Your task to perform on an android device: choose inbox layout in the gmail app Image 0: 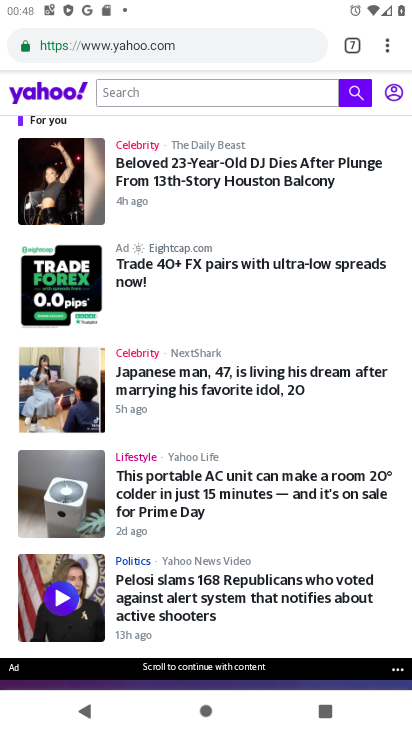
Step 0: press home button
Your task to perform on an android device: choose inbox layout in the gmail app Image 1: 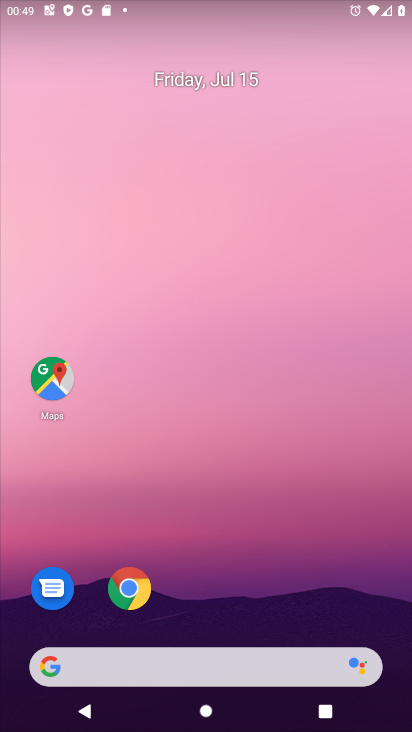
Step 1: drag from (115, 665) to (223, 174)
Your task to perform on an android device: choose inbox layout in the gmail app Image 2: 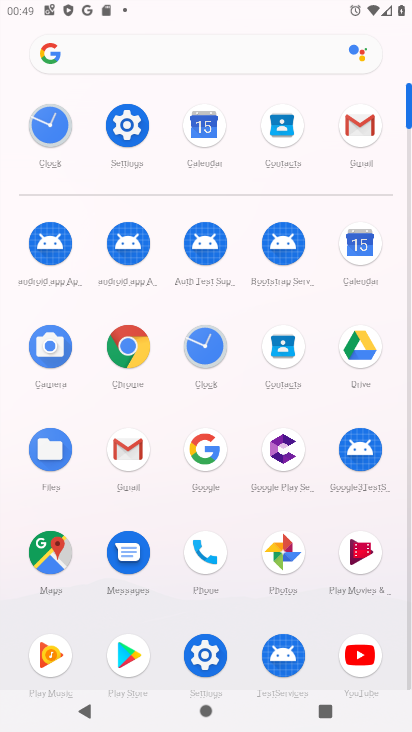
Step 2: click (359, 140)
Your task to perform on an android device: choose inbox layout in the gmail app Image 3: 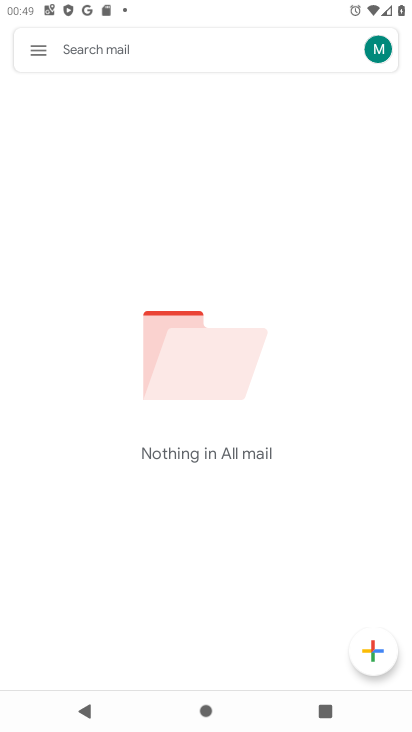
Step 3: click (34, 44)
Your task to perform on an android device: choose inbox layout in the gmail app Image 4: 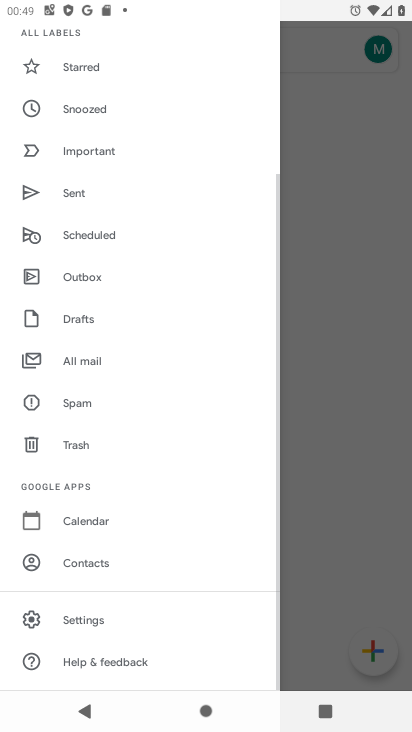
Step 4: click (103, 622)
Your task to perform on an android device: choose inbox layout in the gmail app Image 5: 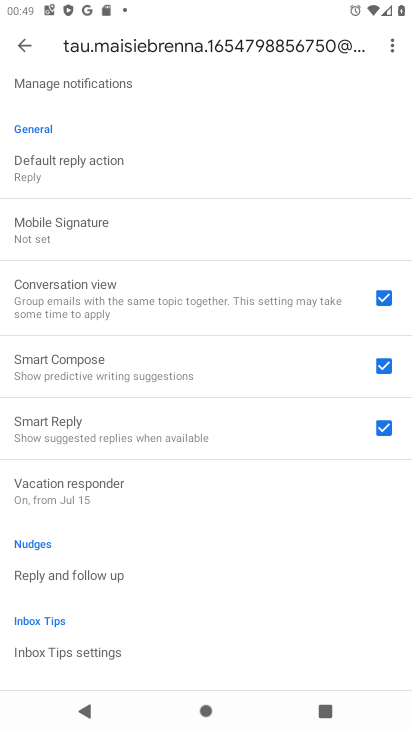
Step 5: drag from (309, 136) to (243, 594)
Your task to perform on an android device: choose inbox layout in the gmail app Image 6: 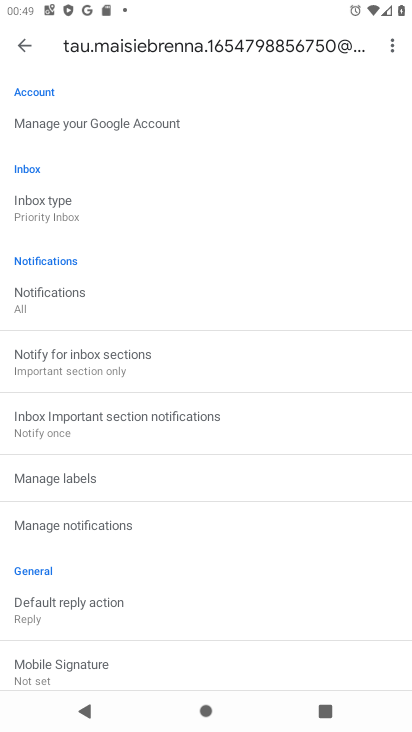
Step 6: click (52, 209)
Your task to perform on an android device: choose inbox layout in the gmail app Image 7: 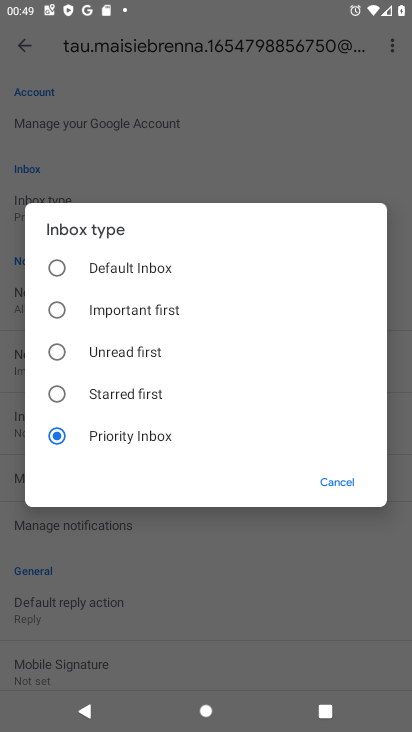
Step 7: click (54, 269)
Your task to perform on an android device: choose inbox layout in the gmail app Image 8: 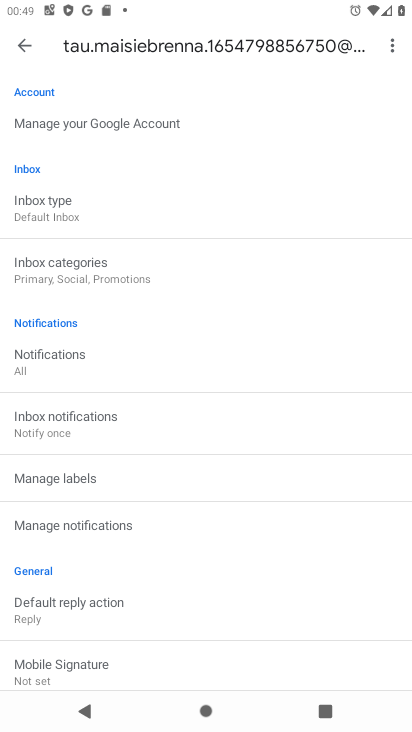
Step 8: task complete